Your task to perform on an android device: open sync settings in chrome Image 0: 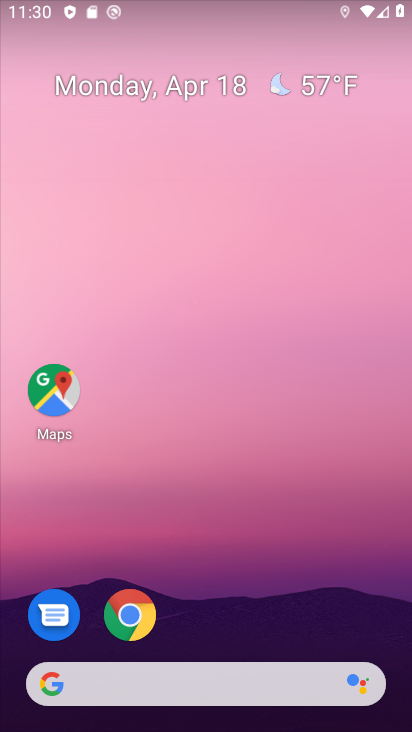
Step 0: click (132, 603)
Your task to perform on an android device: open sync settings in chrome Image 1: 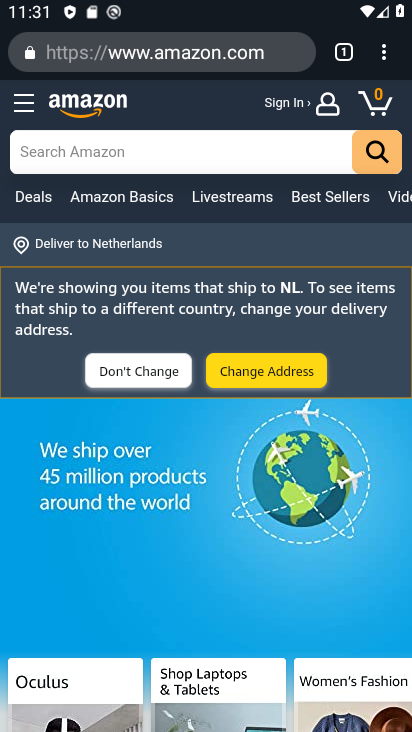
Step 1: click (379, 51)
Your task to perform on an android device: open sync settings in chrome Image 2: 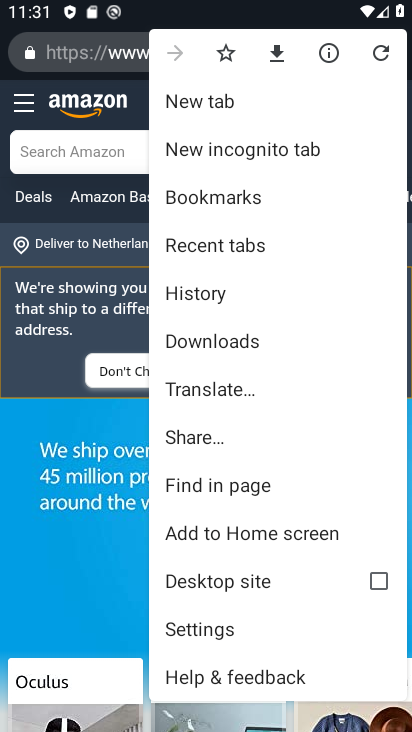
Step 2: drag from (247, 633) to (278, 326)
Your task to perform on an android device: open sync settings in chrome Image 3: 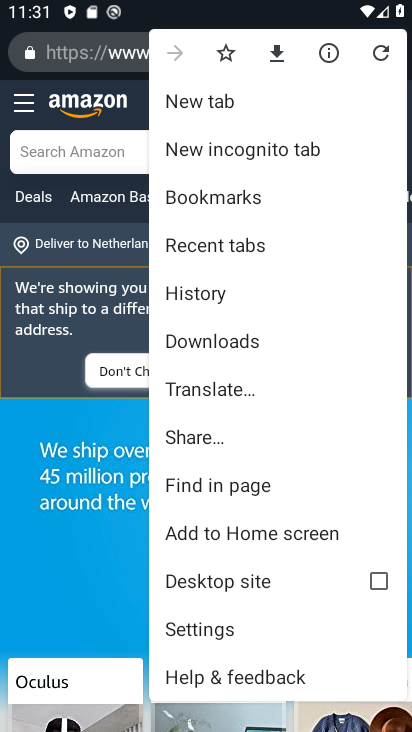
Step 3: click (207, 628)
Your task to perform on an android device: open sync settings in chrome Image 4: 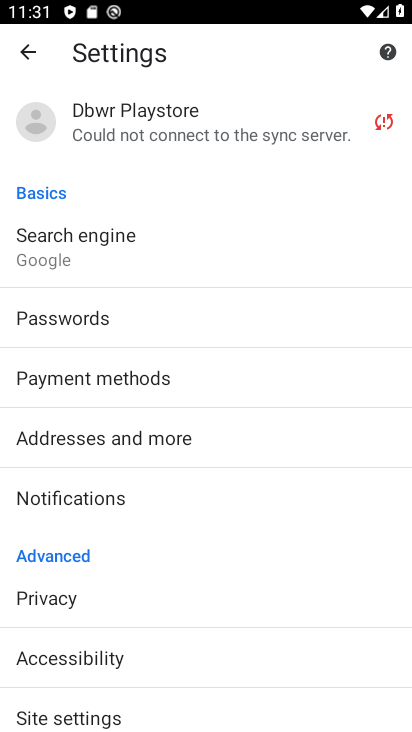
Step 4: drag from (174, 589) to (204, 277)
Your task to perform on an android device: open sync settings in chrome Image 5: 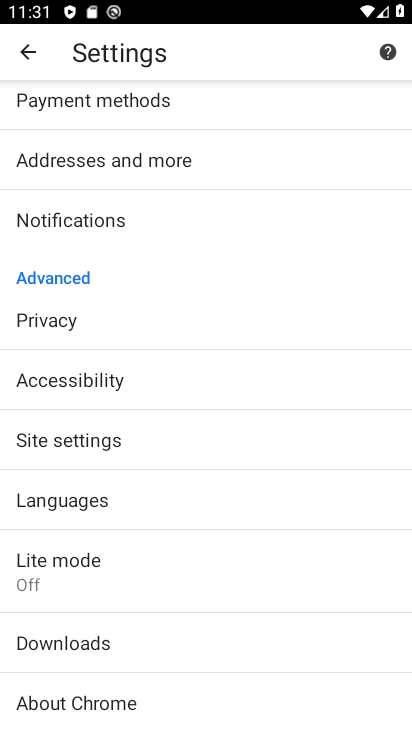
Step 5: drag from (166, 609) to (196, 230)
Your task to perform on an android device: open sync settings in chrome Image 6: 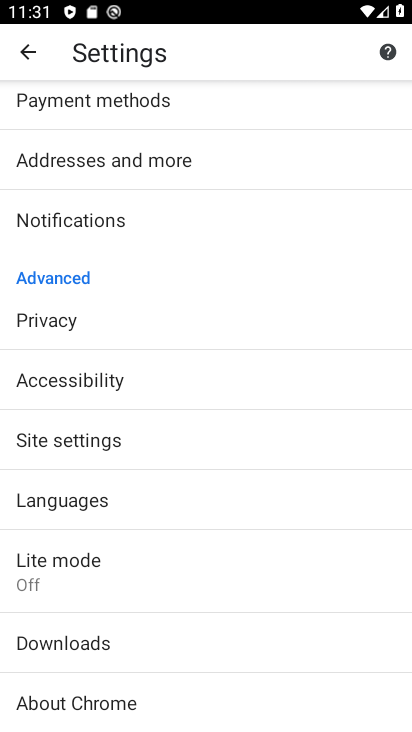
Step 6: drag from (184, 208) to (184, 653)
Your task to perform on an android device: open sync settings in chrome Image 7: 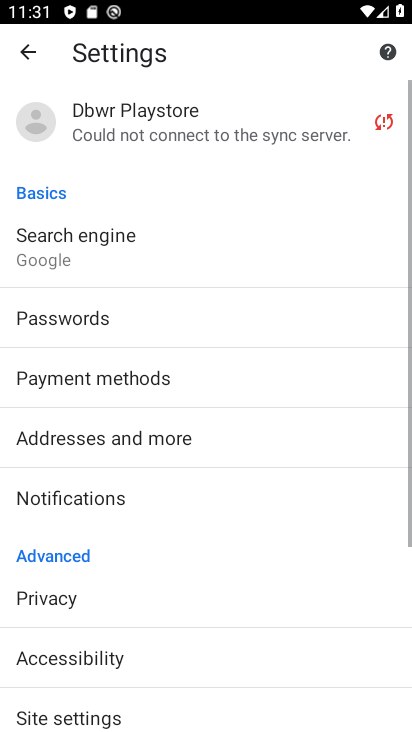
Step 7: click (175, 136)
Your task to perform on an android device: open sync settings in chrome Image 8: 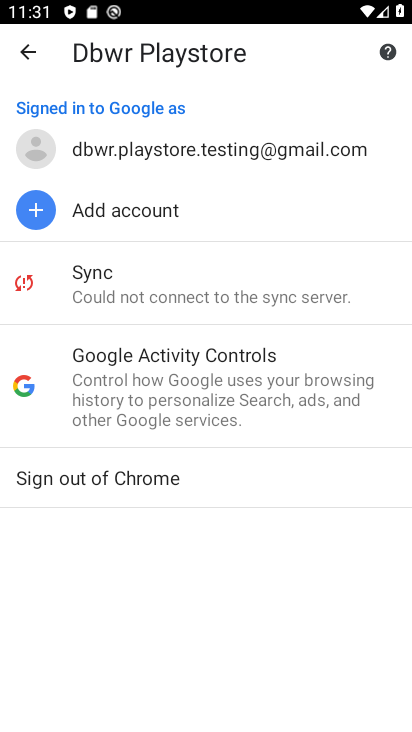
Step 8: click (132, 276)
Your task to perform on an android device: open sync settings in chrome Image 9: 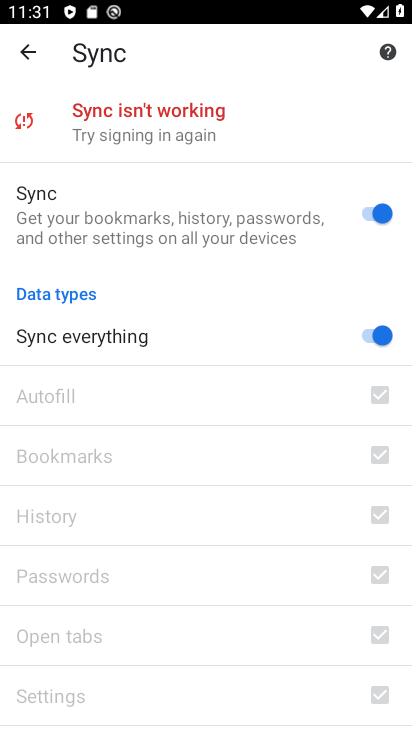
Step 9: task complete